Your task to perform on an android device: check google app version Image 0: 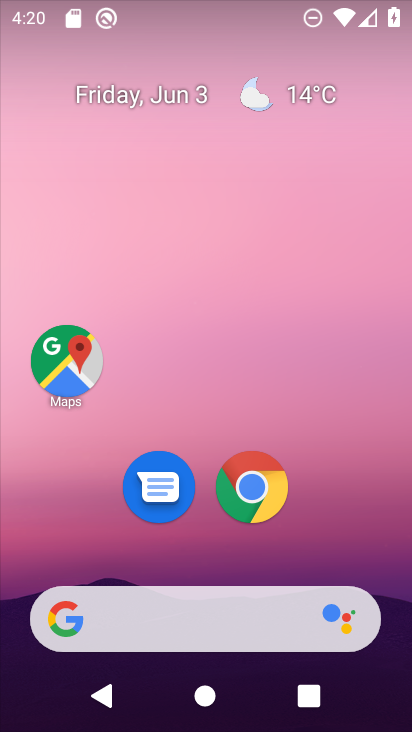
Step 0: drag from (205, 505) to (230, 3)
Your task to perform on an android device: check google app version Image 1: 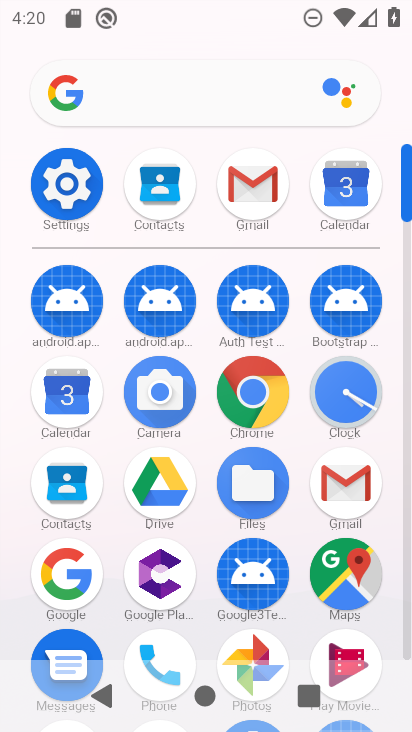
Step 1: click (62, 577)
Your task to perform on an android device: check google app version Image 2: 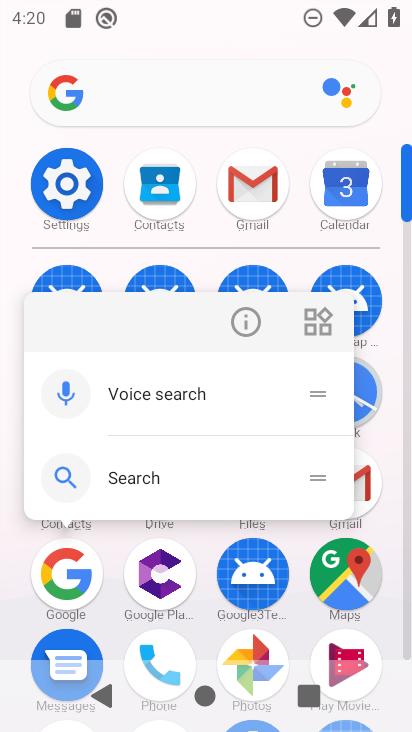
Step 2: click (49, 575)
Your task to perform on an android device: check google app version Image 3: 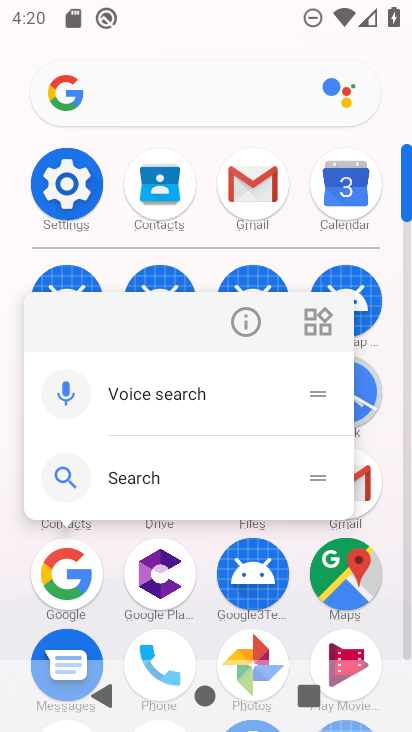
Step 3: click (240, 321)
Your task to perform on an android device: check google app version Image 4: 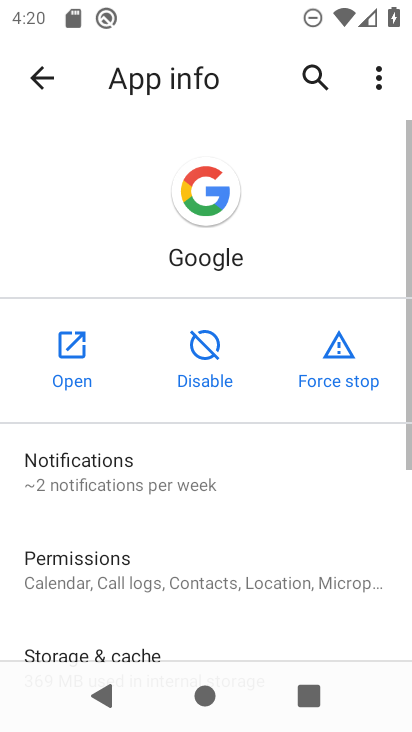
Step 4: drag from (148, 621) to (212, 7)
Your task to perform on an android device: check google app version Image 5: 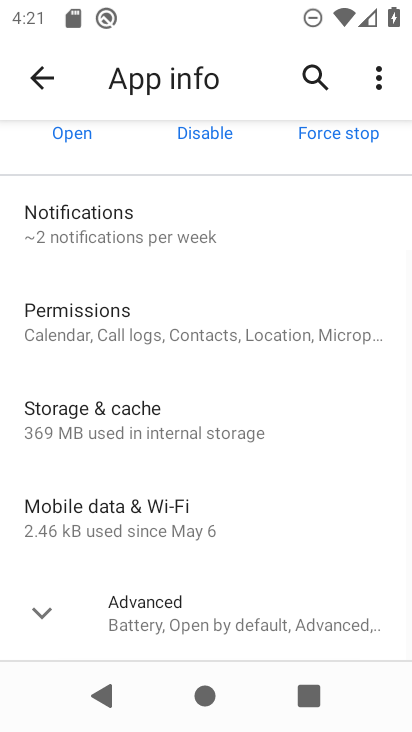
Step 5: click (172, 624)
Your task to perform on an android device: check google app version Image 6: 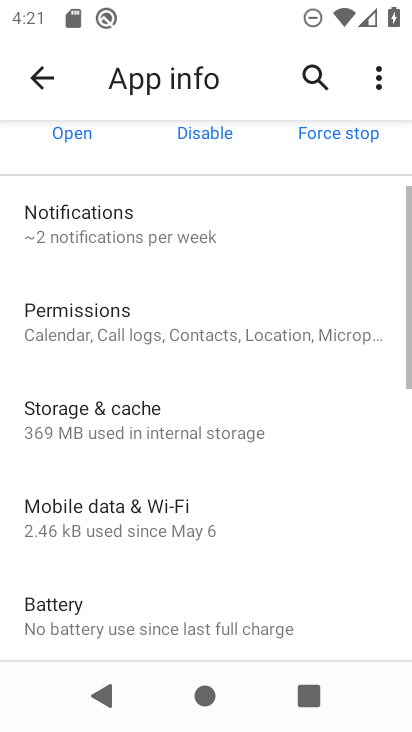
Step 6: drag from (172, 586) to (256, 3)
Your task to perform on an android device: check google app version Image 7: 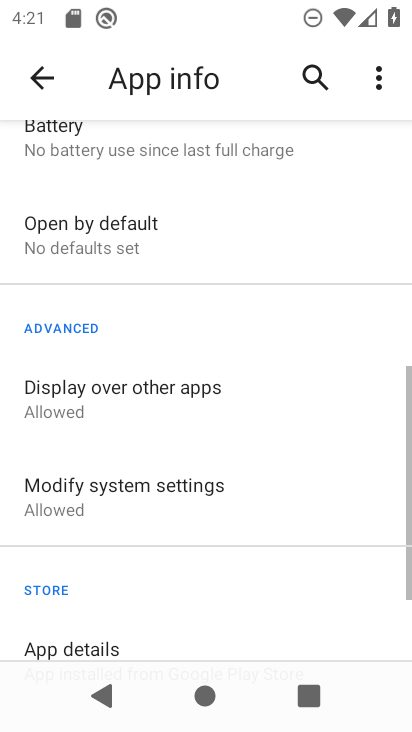
Step 7: click (185, 8)
Your task to perform on an android device: check google app version Image 8: 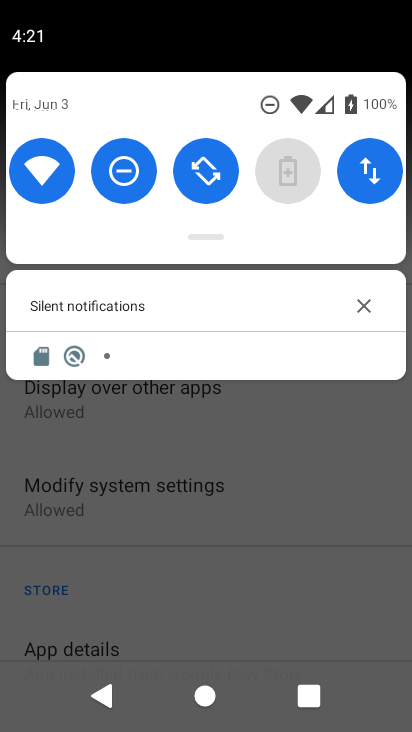
Step 8: task complete